Your task to perform on an android device: What's the weather going to be this weekend? Image 0: 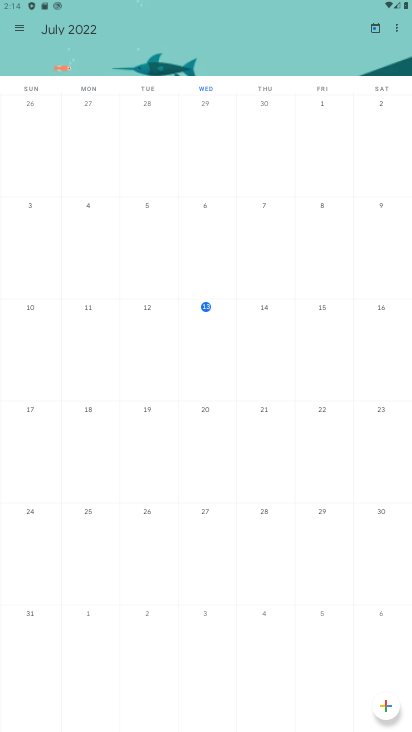
Step 0: press back button
Your task to perform on an android device: What's the weather going to be this weekend? Image 1: 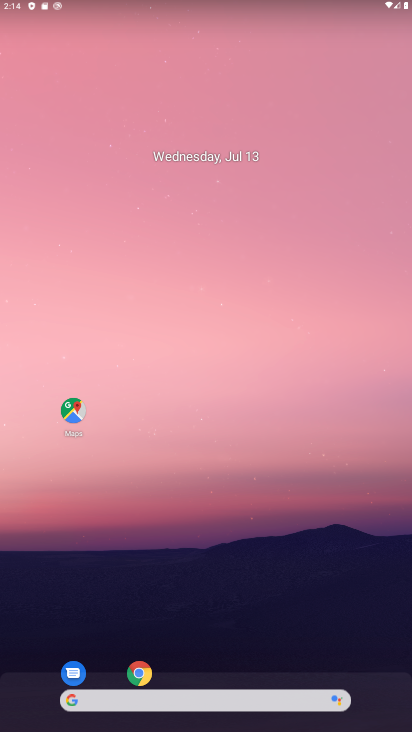
Step 1: drag from (197, 395) to (159, 245)
Your task to perform on an android device: What's the weather going to be this weekend? Image 2: 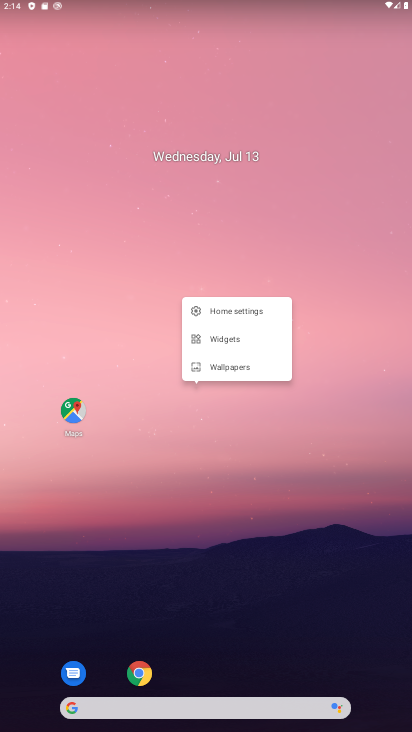
Step 2: drag from (308, 547) to (52, 63)
Your task to perform on an android device: What's the weather going to be this weekend? Image 3: 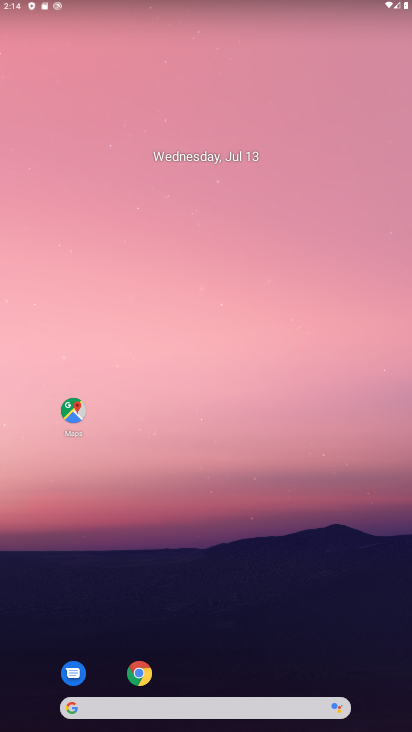
Step 3: drag from (294, 639) to (195, 77)
Your task to perform on an android device: What's the weather going to be this weekend? Image 4: 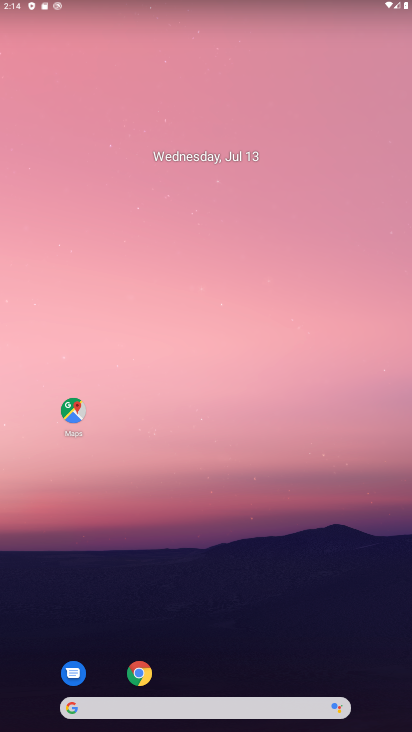
Step 4: drag from (276, 493) to (111, 9)
Your task to perform on an android device: What's the weather going to be this weekend? Image 5: 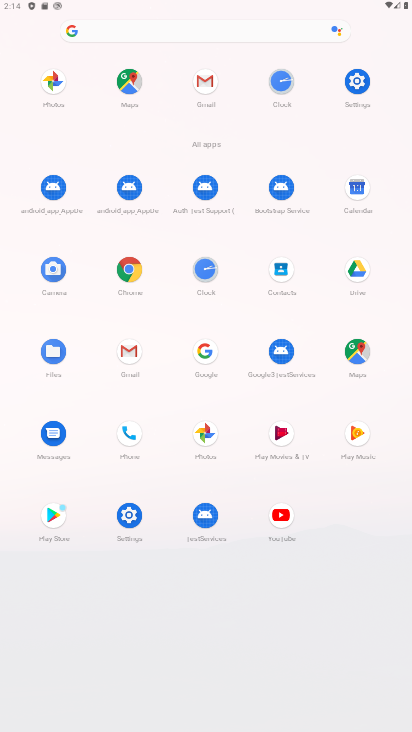
Step 5: drag from (234, 632) to (97, 32)
Your task to perform on an android device: What's the weather going to be this weekend? Image 6: 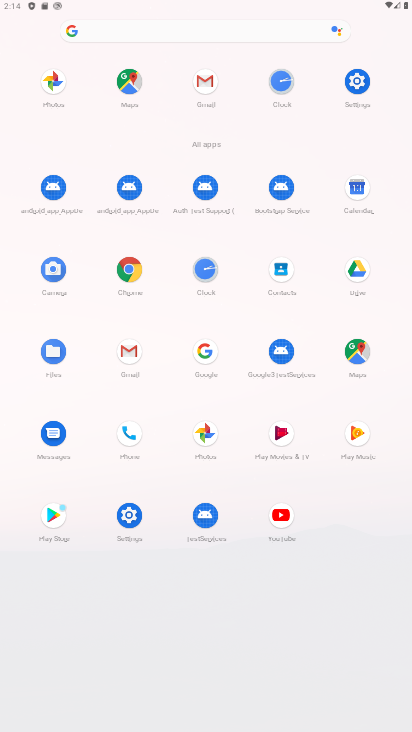
Step 6: click (123, 262)
Your task to perform on an android device: What's the weather going to be this weekend? Image 7: 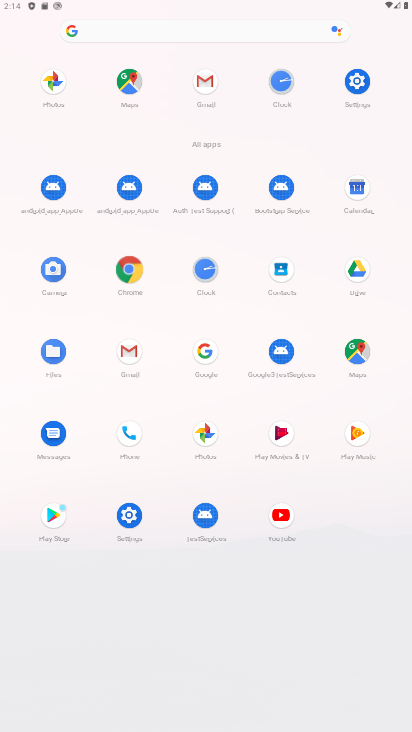
Step 7: click (124, 261)
Your task to perform on an android device: What's the weather going to be this weekend? Image 8: 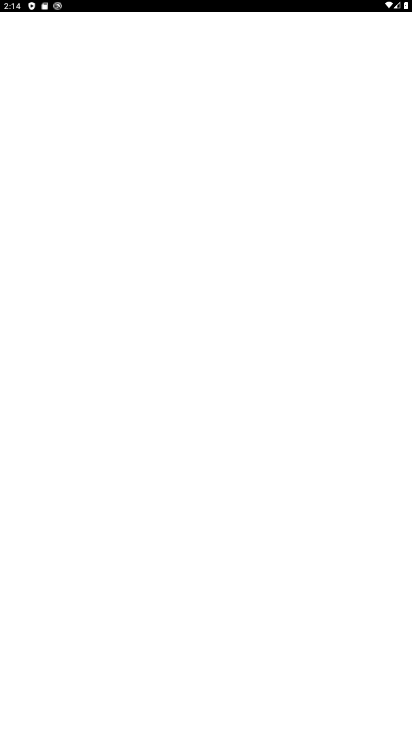
Step 8: click (130, 266)
Your task to perform on an android device: What's the weather going to be this weekend? Image 9: 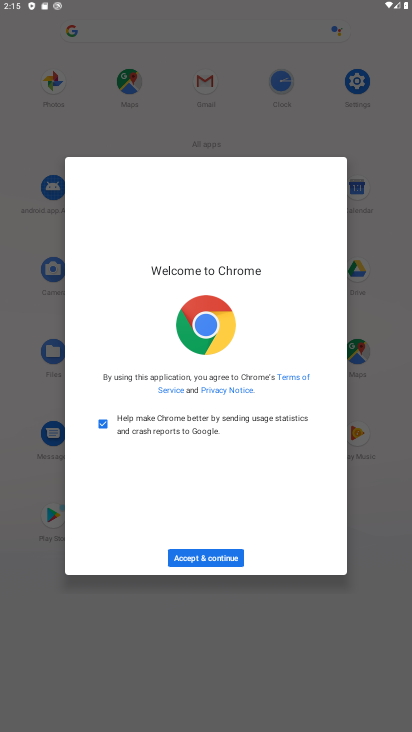
Step 9: click (212, 551)
Your task to perform on an android device: What's the weather going to be this weekend? Image 10: 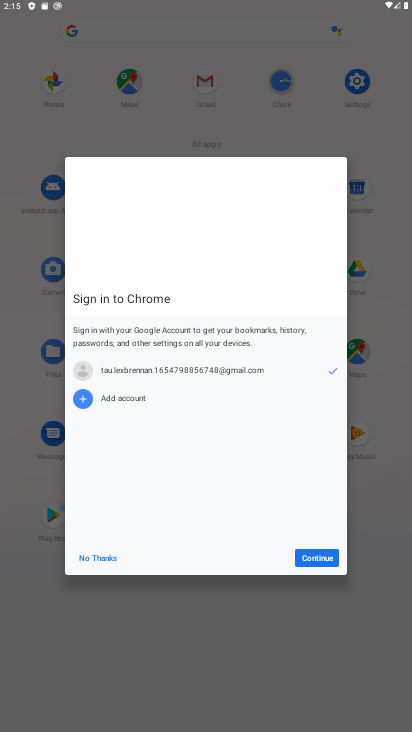
Step 10: click (333, 554)
Your task to perform on an android device: What's the weather going to be this weekend? Image 11: 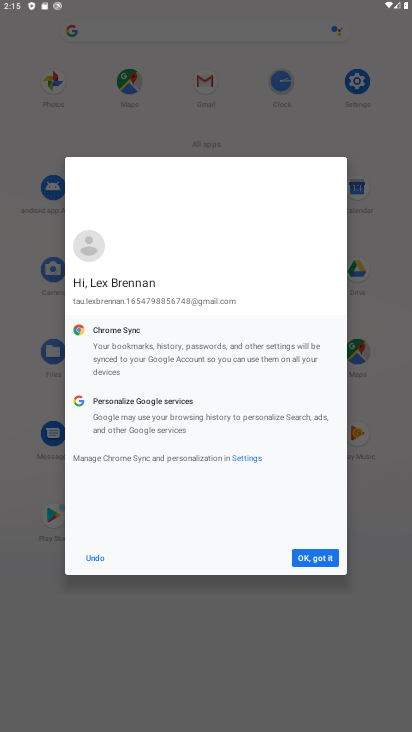
Step 11: click (327, 552)
Your task to perform on an android device: What's the weather going to be this weekend? Image 12: 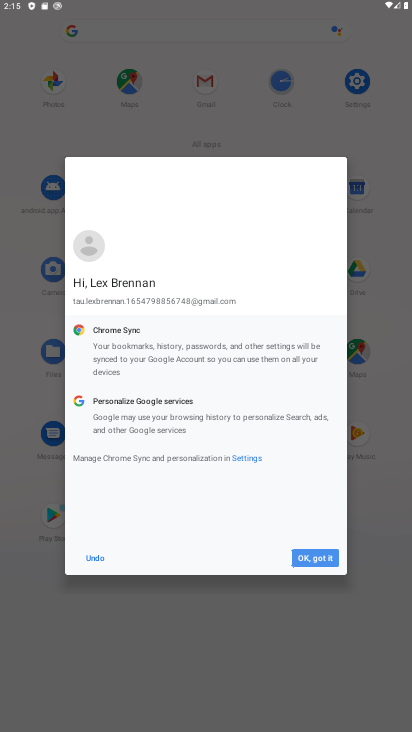
Step 12: click (328, 551)
Your task to perform on an android device: What's the weather going to be this weekend? Image 13: 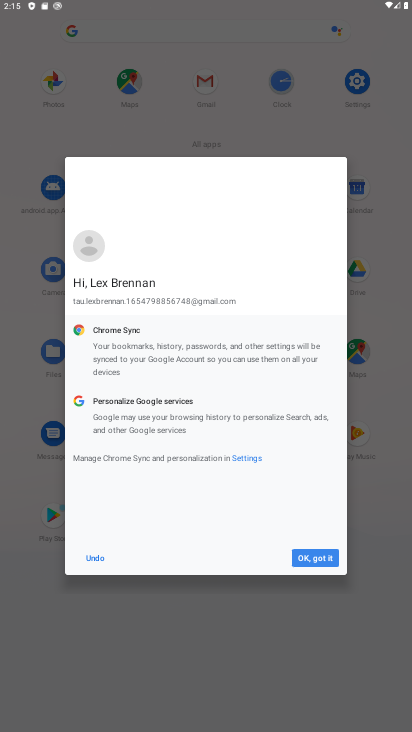
Step 13: click (329, 551)
Your task to perform on an android device: What's the weather going to be this weekend? Image 14: 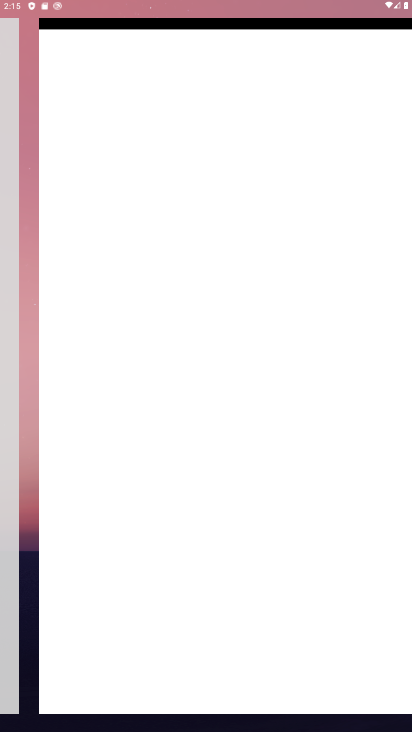
Step 14: click (331, 553)
Your task to perform on an android device: What's the weather going to be this weekend? Image 15: 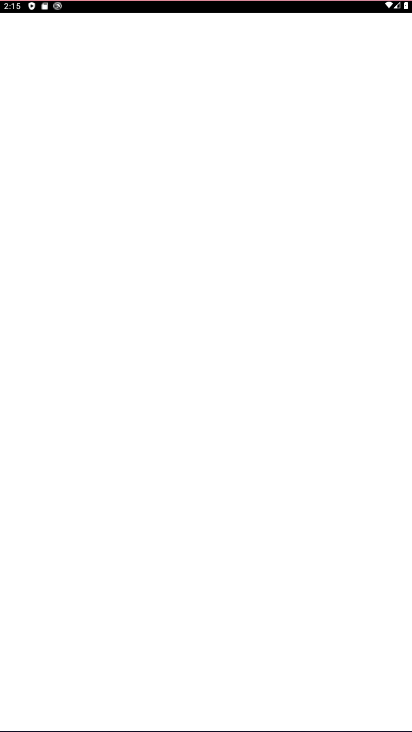
Step 15: click (331, 553)
Your task to perform on an android device: What's the weather going to be this weekend? Image 16: 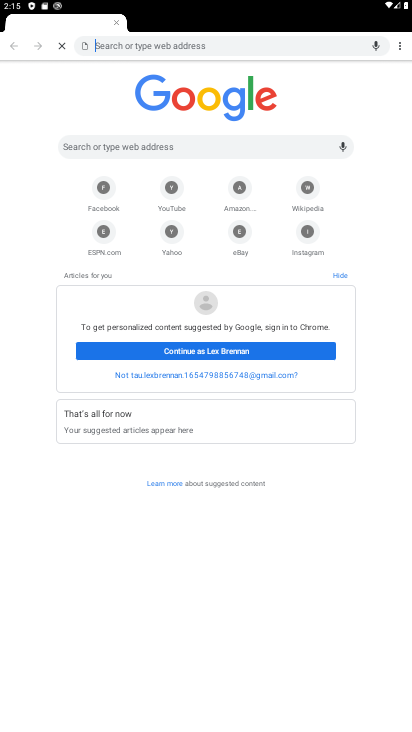
Step 16: click (105, 39)
Your task to perform on an android device: What's the weather going to be this weekend? Image 17: 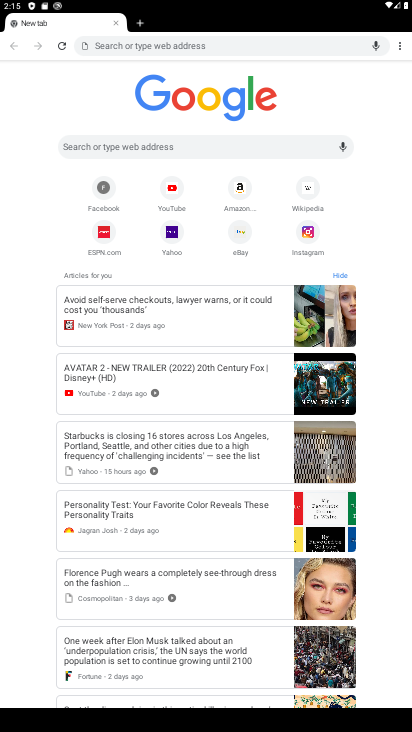
Step 17: type "weather today"
Your task to perform on an android device: What's the weather going to be this weekend? Image 18: 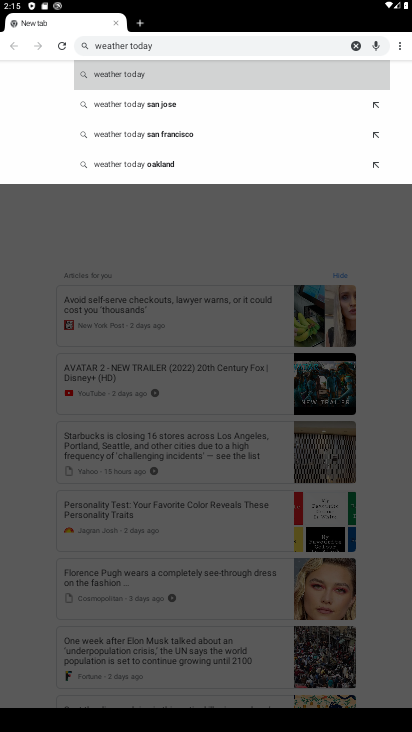
Step 18: click (113, 76)
Your task to perform on an android device: What's the weather going to be this weekend? Image 19: 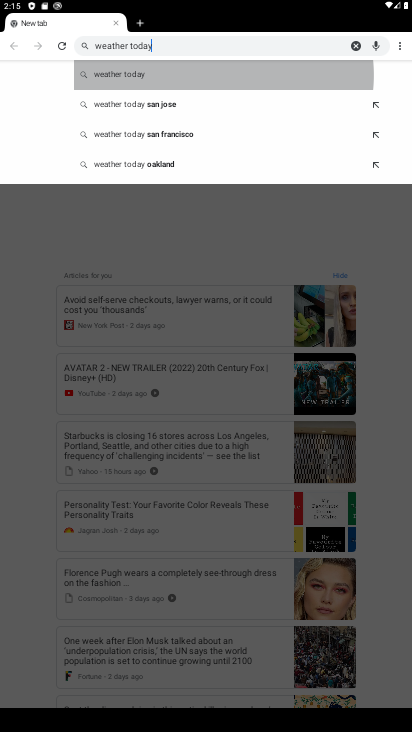
Step 19: click (115, 74)
Your task to perform on an android device: What's the weather going to be this weekend? Image 20: 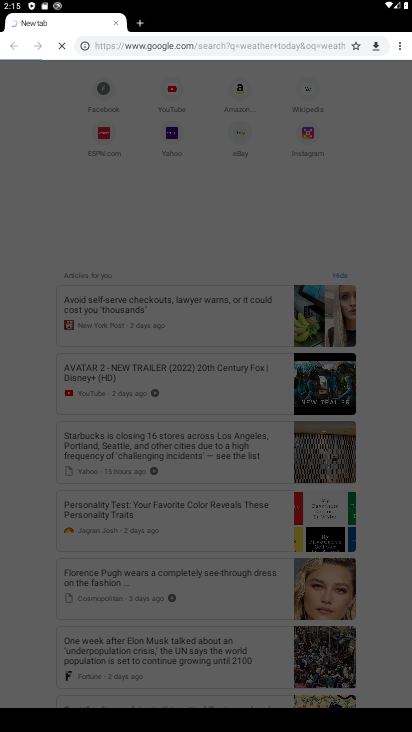
Step 20: click (116, 74)
Your task to perform on an android device: What's the weather going to be this weekend? Image 21: 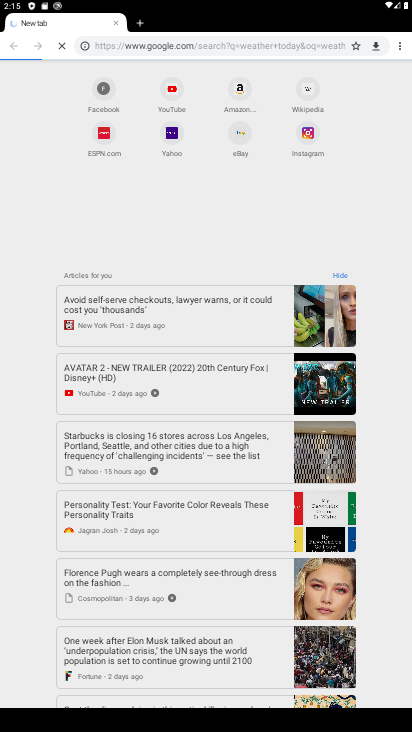
Step 21: click (117, 74)
Your task to perform on an android device: What's the weather going to be this weekend? Image 22: 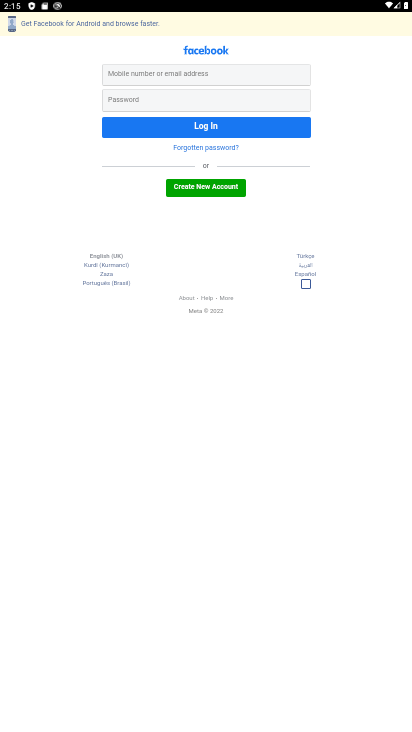
Step 22: task complete